Your task to perform on an android device: Open Reddit.com Image 0: 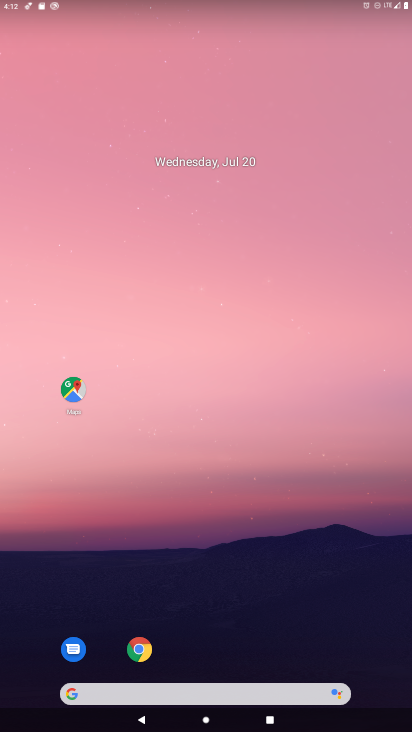
Step 0: click (140, 649)
Your task to perform on an android device: Open Reddit.com Image 1: 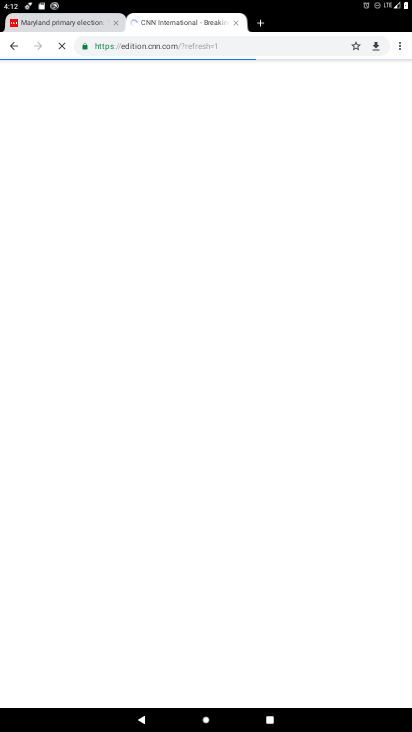
Step 1: click (244, 46)
Your task to perform on an android device: Open Reddit.com Image 2: 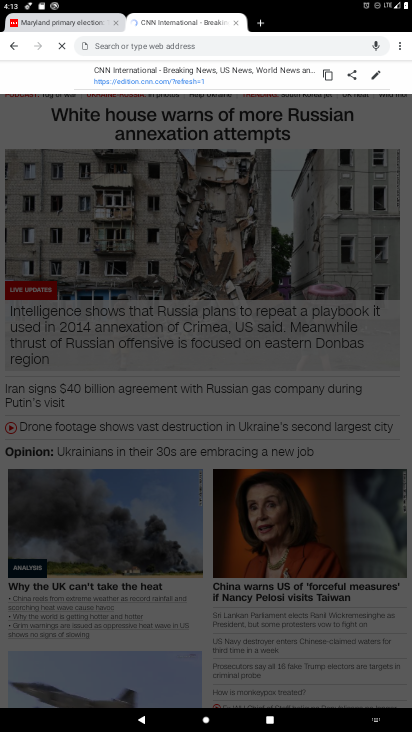
Step 2: type "Reddit.com"
Your task to perform on an android device: Open Reddit.com Image 3: 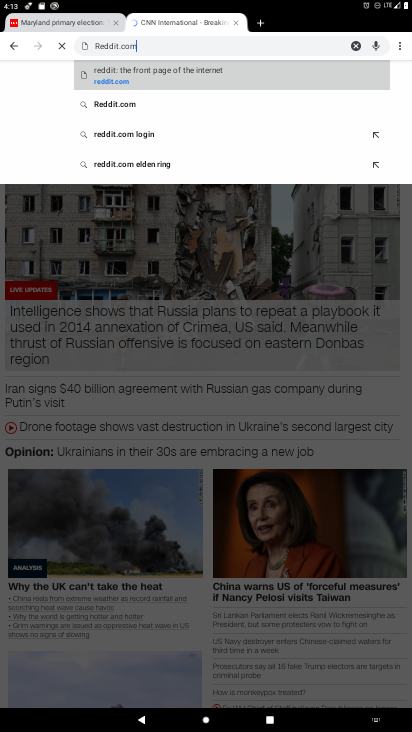
Step 3: click (116, 109)
Your task to perform on an android device: Open Reddit.com Image 4: 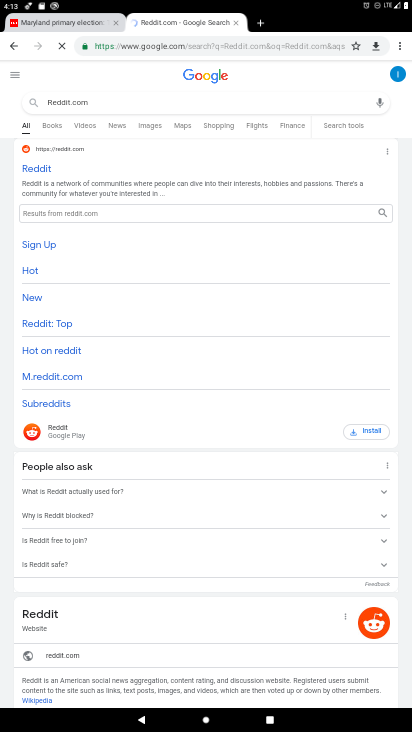
Step 4: click (40, 170)
Your task to perform on an android device: Open Reddit.com Image 5: 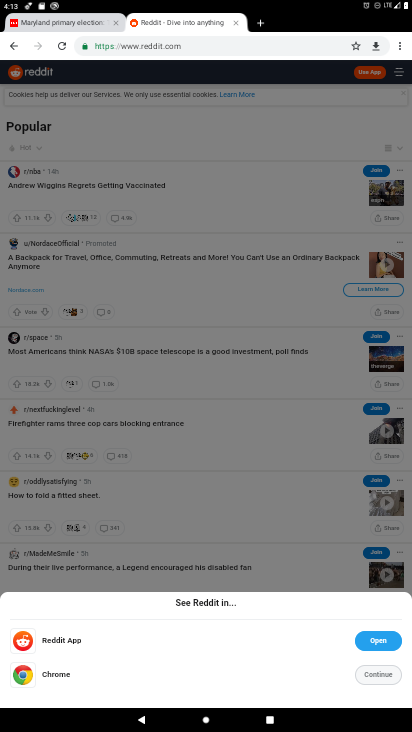
Step 5: click (374, 674)
Your task to perform on an android device: Open Reddit.com Image 6: 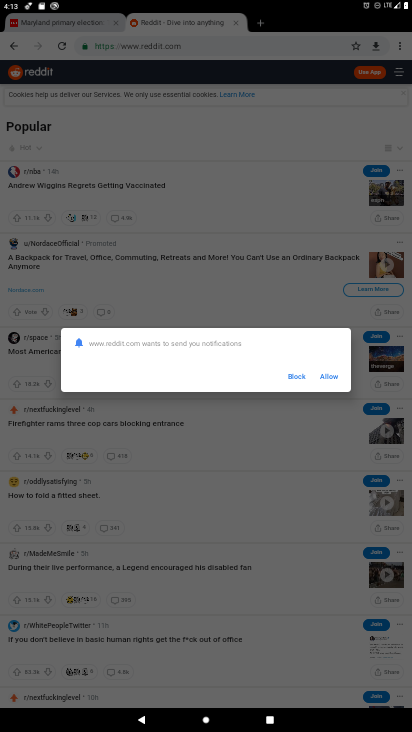
Step 6: click (332, 381)
Your task to perform on an android device: Open Reddit.com Image 7: 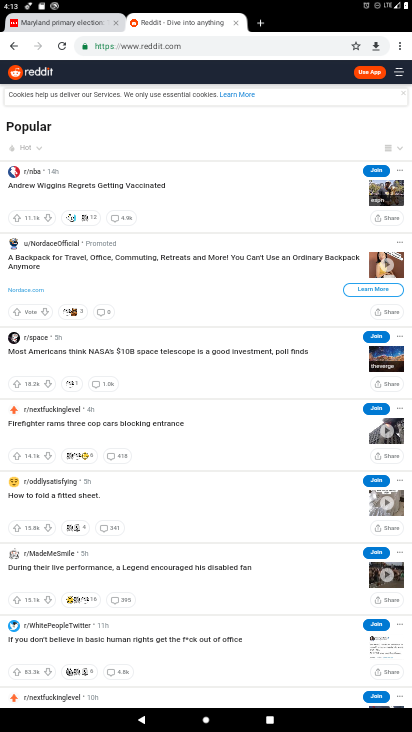
Step 7: task complete